Your task to perform on an android device: Look up the best rated coffee maker on Lowe's. Image 0: 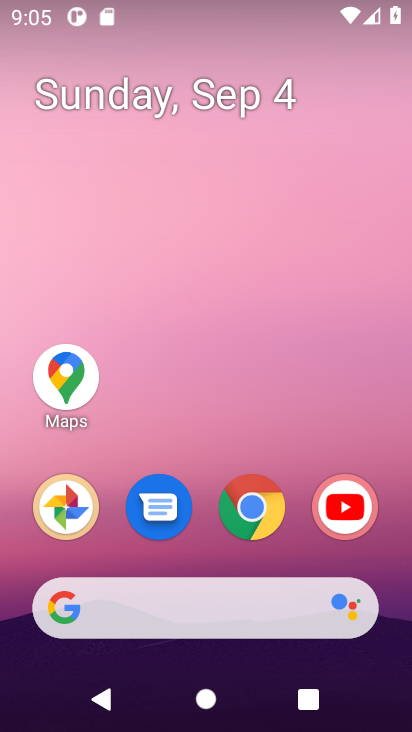
Step 0: click (252, 511)
Your task to perform on an android device: Look up the best rated coffee maker on Lowe's. Image 1: 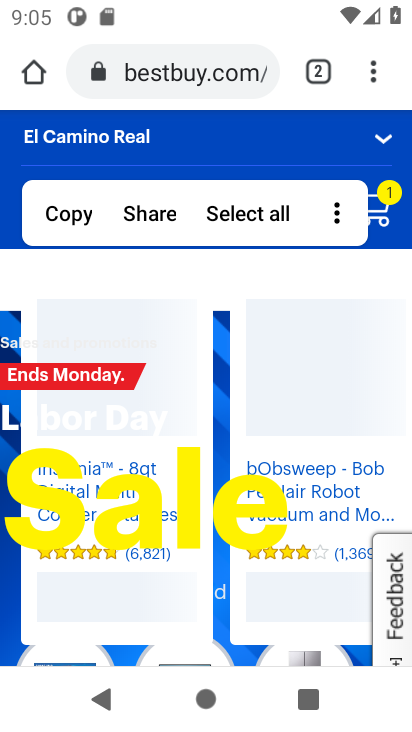
Step 1: click (203, 50)
Your task to perform on an android device: Look up the best rated coffee maker on Lowe's. Image 2: 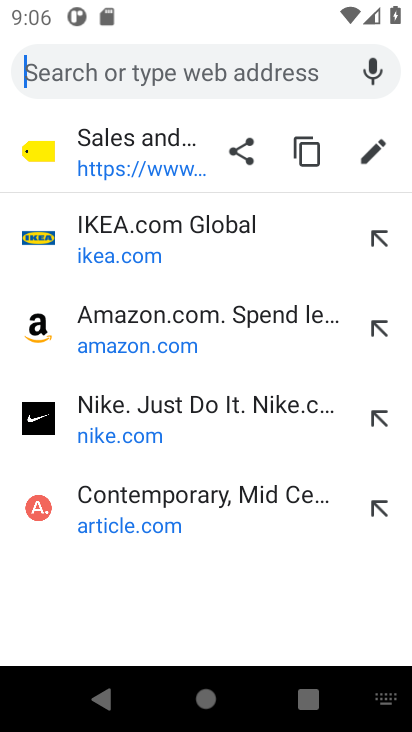
Step 2: type " Lowe's"
Your task to perform on an android device: Look up the best rated coffee maker on Lowe's. Image 3: 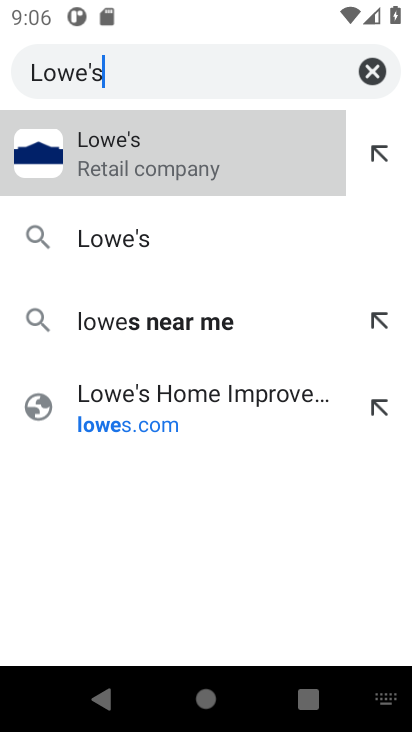
Step 3: click (119, 145)
Your task to perform on an android device: Look up the best rated coffee maker on Lowe's. Image 4: 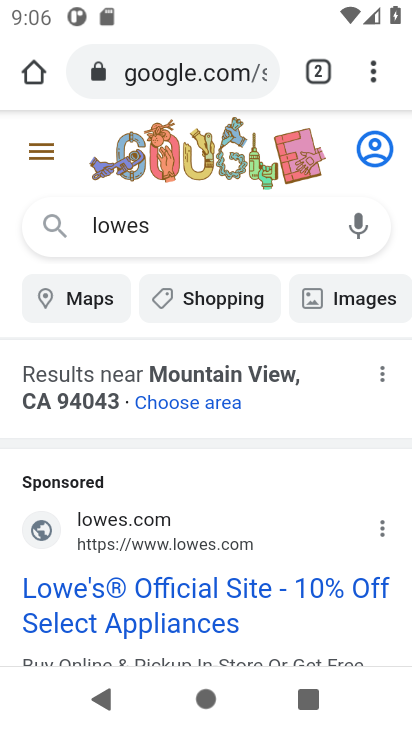
Step 4: click (66, 598)
Your task to perform on an android device: Look up the best rated coffee maker on Lowe's. Image 5: 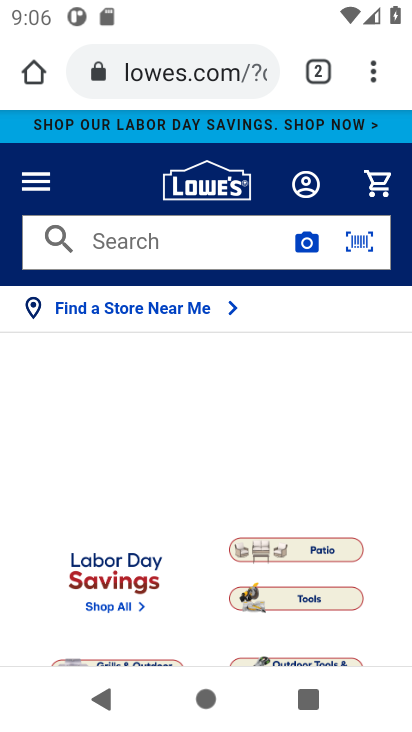
Step 5: click (92, 233)
Your task to perform on an android device: Look up the best rated coffee maker on Lowe's. Image 6: 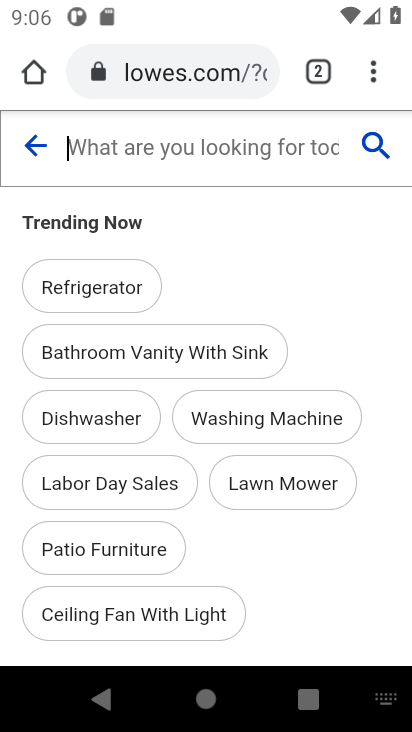
Step 6: type "best rated coffee maker"
Your task to perform on an android device: Look up the best rated coffee maker on Lowe's. Image 7: 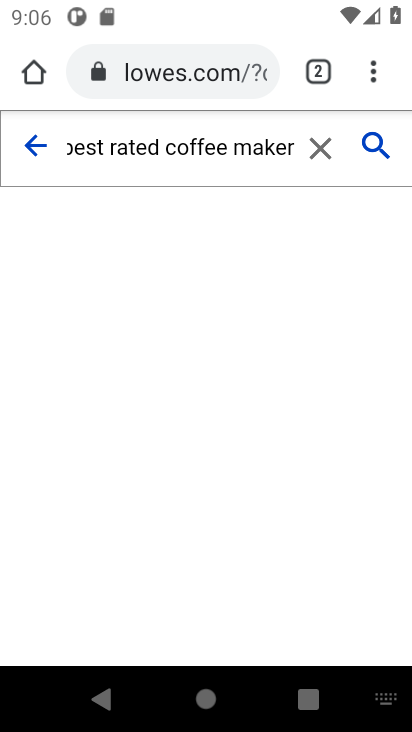
Step 7: click (374, 141)
Your task to perform on an android device: Look up the best rated coffee maker on Lowe's. Image 8: 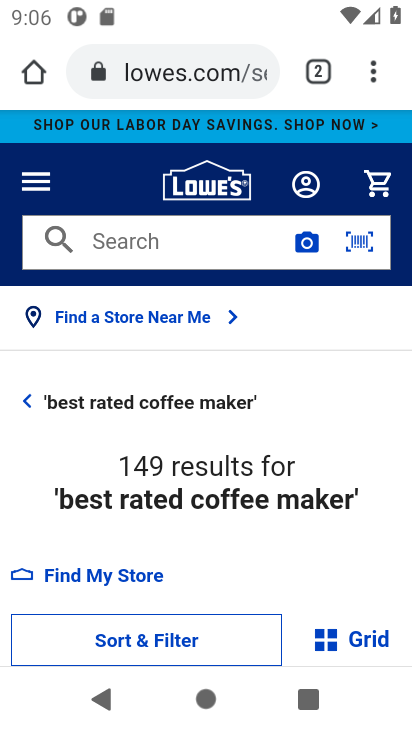
Step 8: task complete